Your task to perform on an android device: Open Chrome and go to settings Image 0: 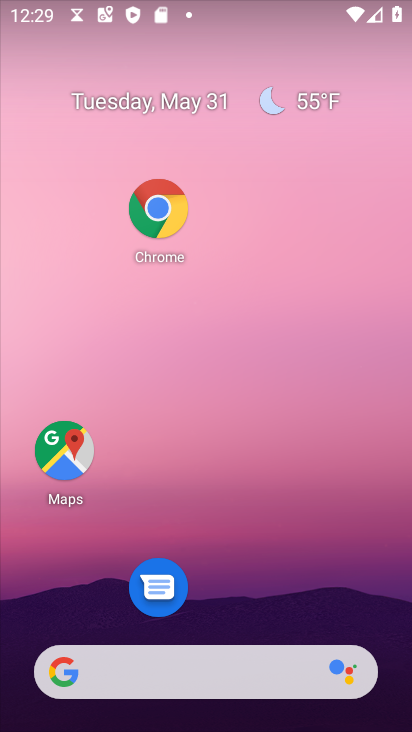
Step 0: click (167, 212)
Your task to perform on an android device: Open Chrome and go to settings Image 1: 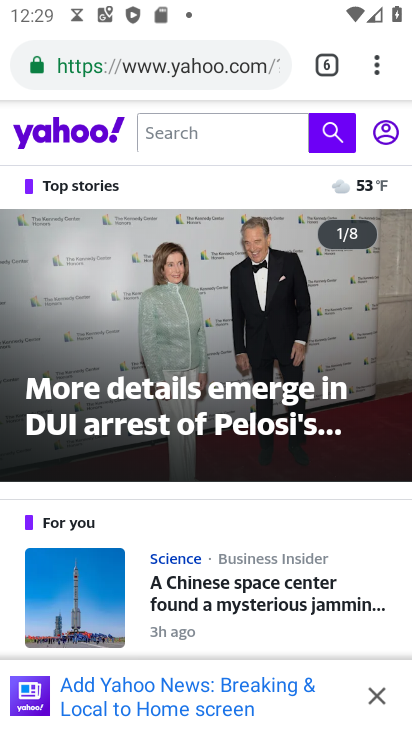
Step 1: click (375, 57)
Your task to perform on an android device: Open Chrome and go to settings Image 2: 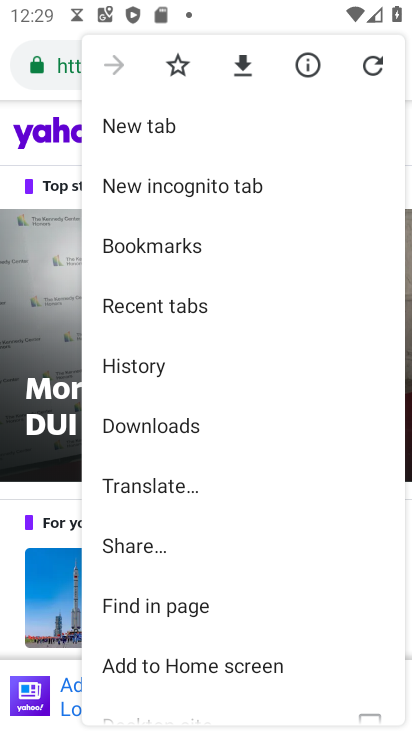
Step 2: drag from (192, 633) to (199, 443)
Your task to perform on an android device: Open Chrome and go to settings Image 3: 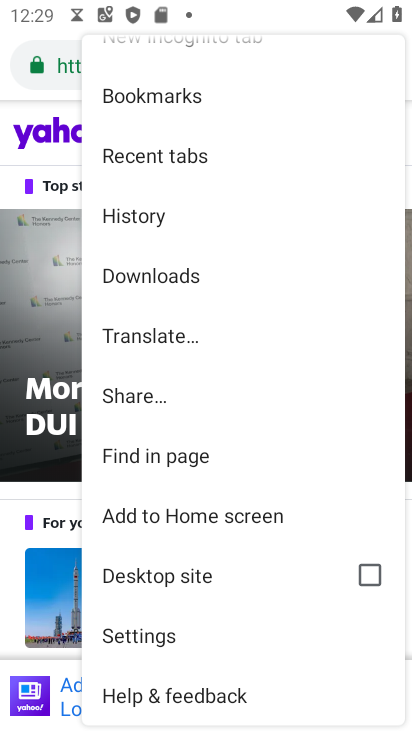
Step 3: click (179, 633)
Your task to perform on an android device: Open Chrome and go to settings Image 4: 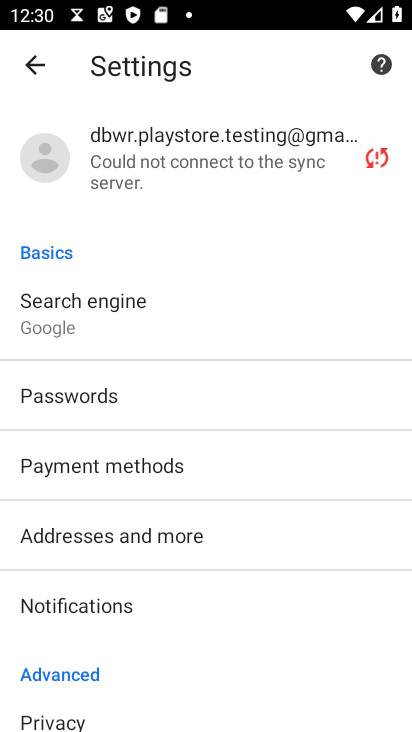
Step 4: task complete